Your task to perform on an android device: toggle notifications settings in the gmail app Image 0: 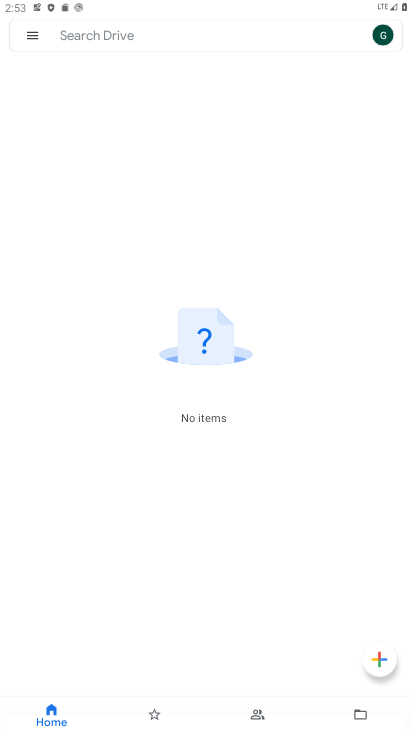
Step 0: press home button
Your task to perform on an android device: toggle notifications settings in the gmail app Image 1: 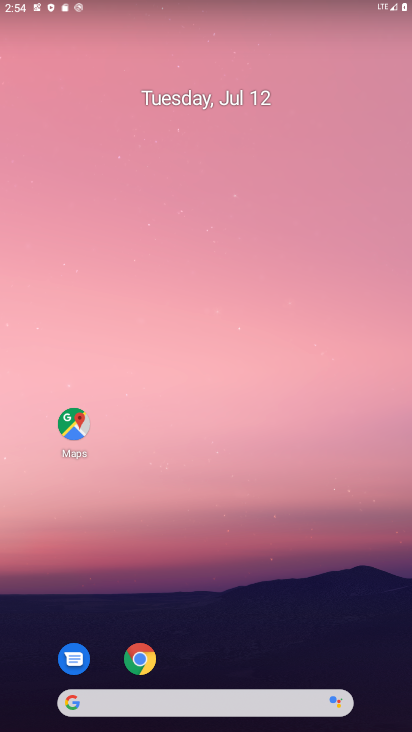
Step 1: drag from (277, 711) to (321, 149)
Your task to perform on an android device: toggle notifications settings in the gmail app Image 2: 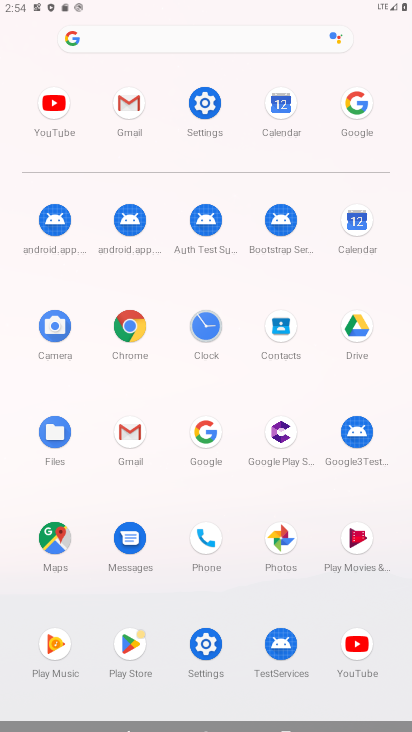
Step 2: click (126, 428)
Your task to perform on an android device: toggle notifications settings in the gmail app Image 3: 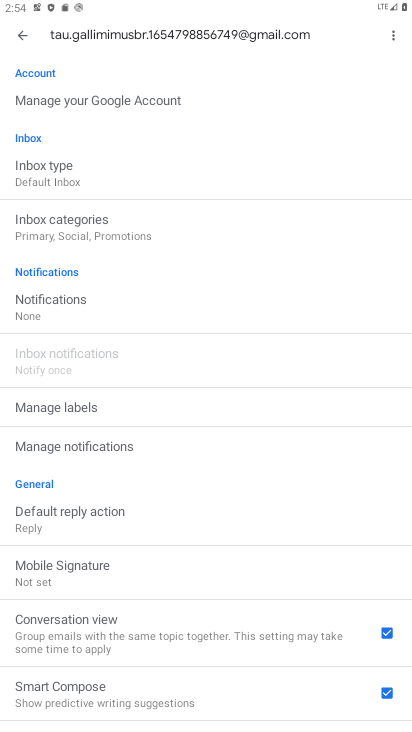
Step 3: click (57, 302)
Your task to perform on an android device: toggle notifications settings in the gmail app Image 4: 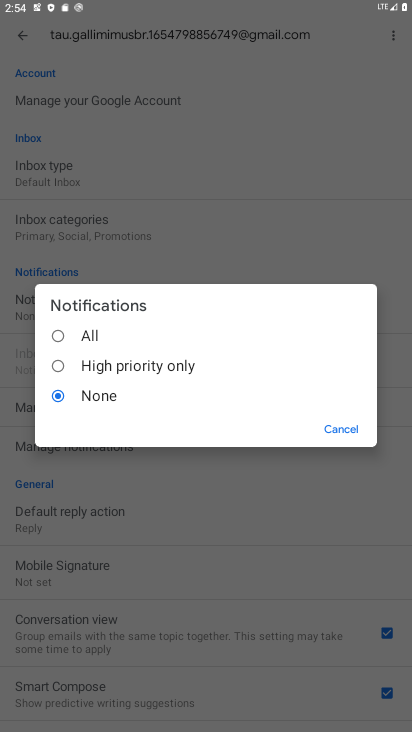
Step 4: click (56, 331)
Your task to perform on an android device: toggle notifications settings in the gmail app Image 5: 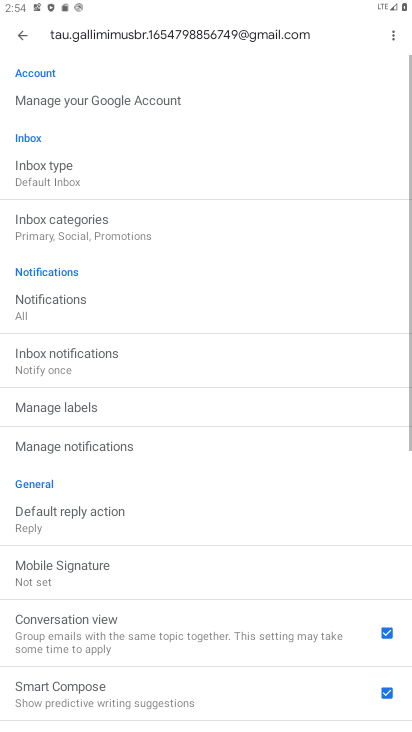
Step 5: task complete